Your task to perform on an android device: Open internet settings Image 0: 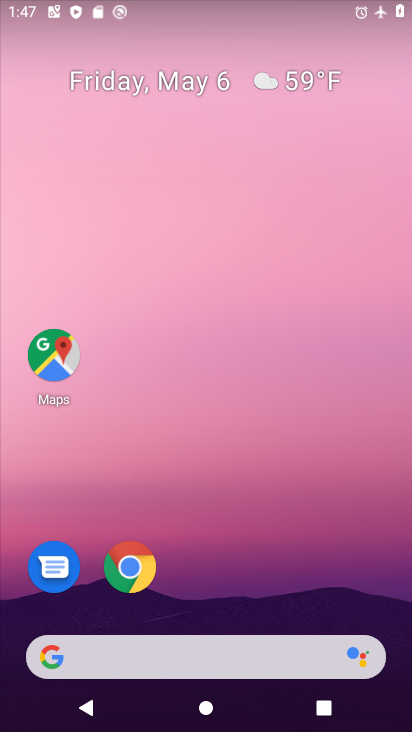
Step 0: drag from (307, 594) to (255, 0)
Your task to perform on an android device: Open internet settings Image 1: 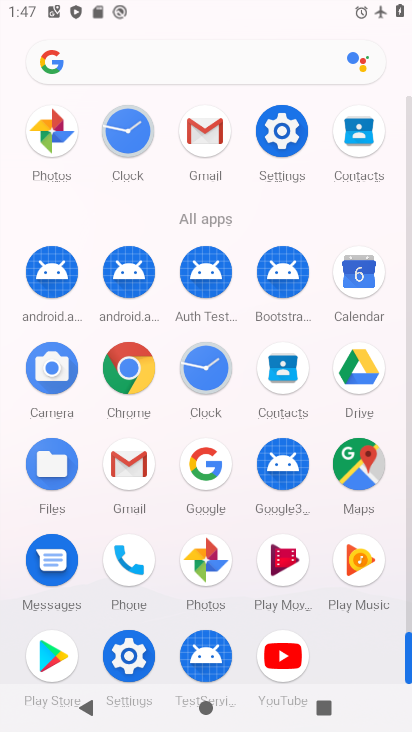
Step 1: click (139, 662)
Your task to perform on an android device: Open internet settings Image 2: 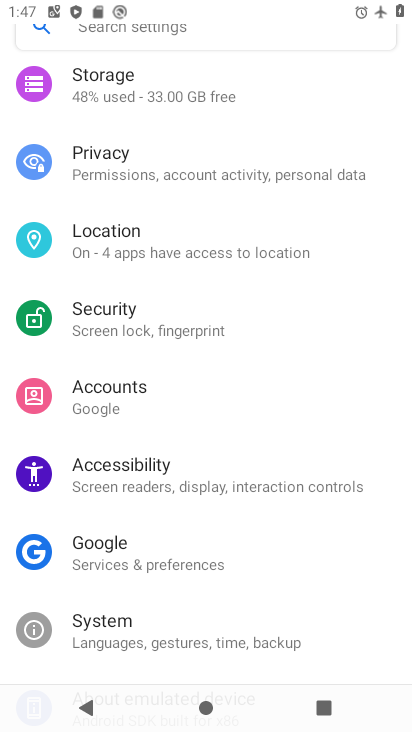
Step 2: drag from (156, 123) to (165, 543)
Your task to perform on an android device: Open internet settings Image 3: 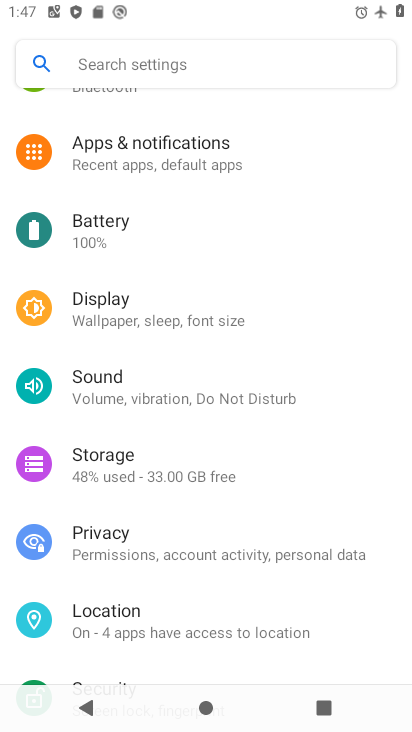
Step 3: drag from (138, 145) to (142, 507)
Your task to perform on an android device: Open internet settings Image 4: 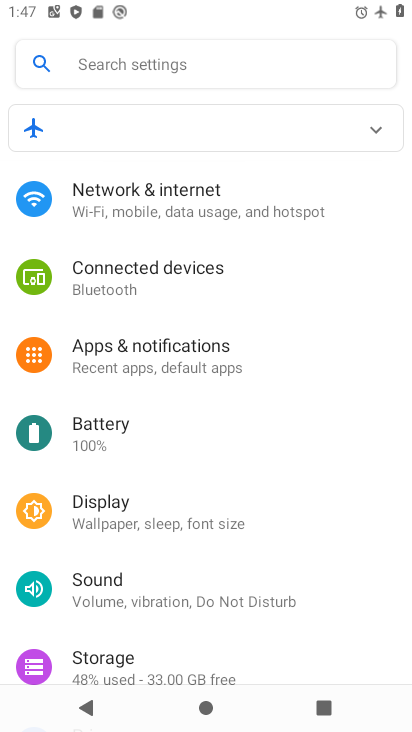
Step 4: click (191, 197)
Your task to perform on an android device: Open internet settings Image 5: 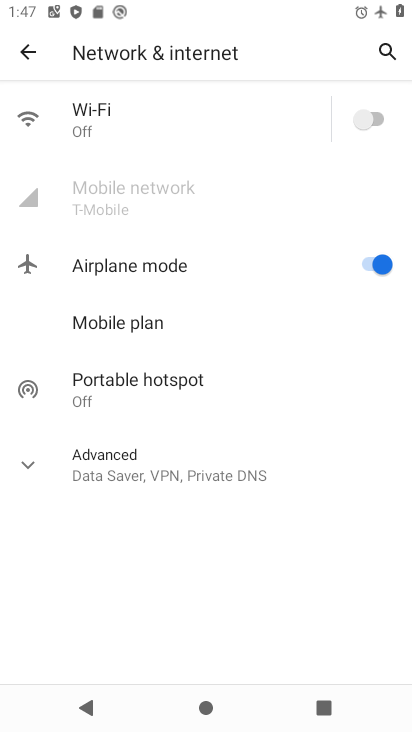
Step 5: task complete